Your task to perform on an android device: See recent photos Image 0: 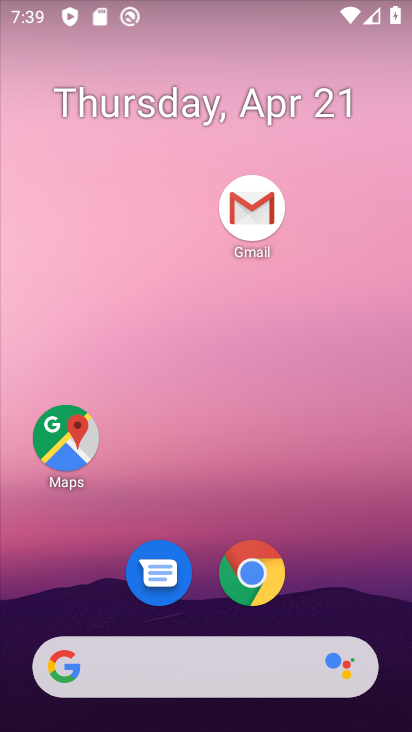
Step 0: drag from (350, 544) to (374, 141)
Your task to perform on an android device: See recent photos Image 1: 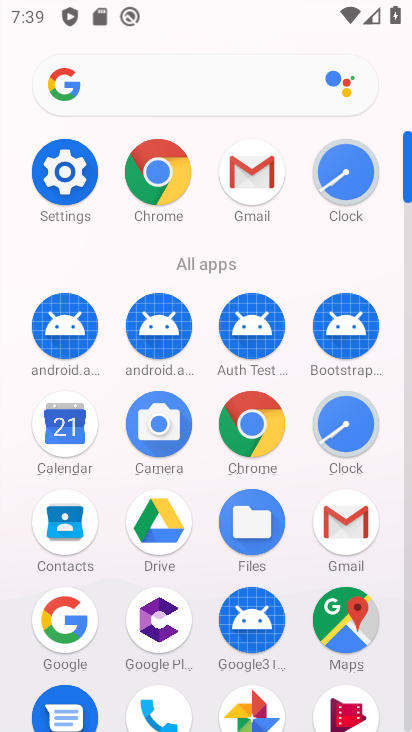
Step 1: drag from (387, 578) to (356, 340)
Your task to perform on an android device: See recent photos Image 2: 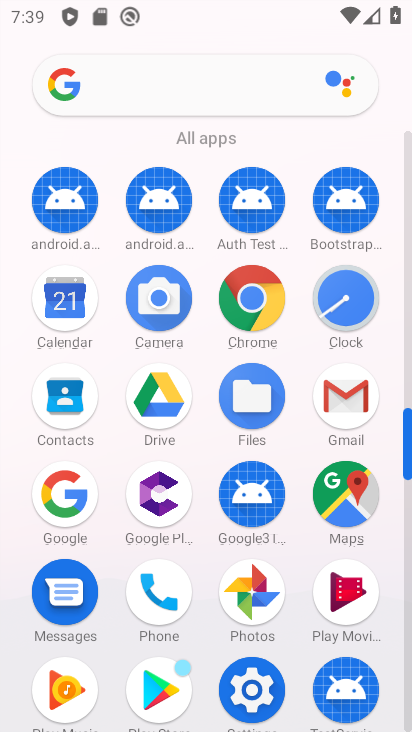
Step 2: click (242, 588)
Your task to perform on an android device: See recent photos Image 3: 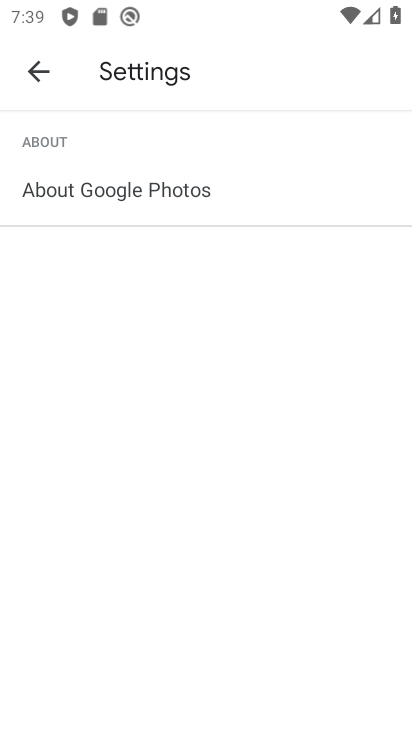
Step 3: click (33, 94)
Your task to perform on an android device: See recent photos Image 4: 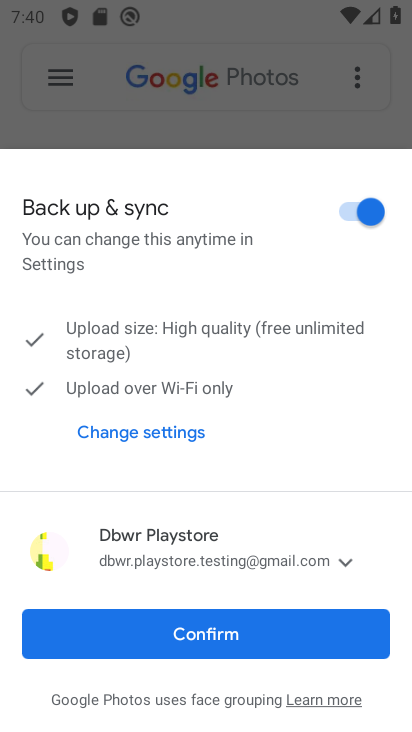
Step 4: click (159, 629)
Your task to perform on an android device: See recent photos Image 5: 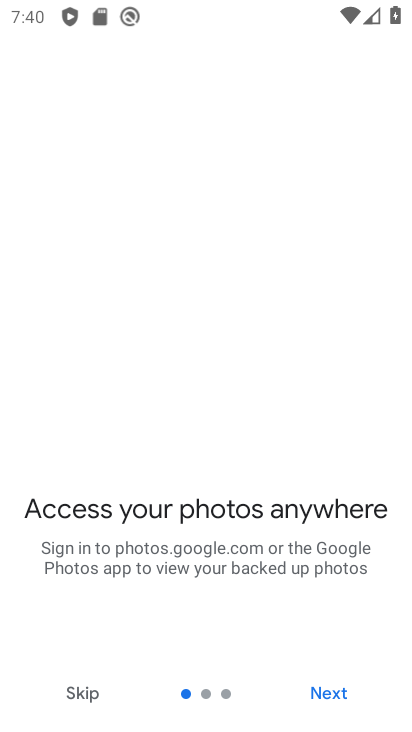
Step 5: click (329, 687)
Your task to perform on an android device: See recent photos Image 6: 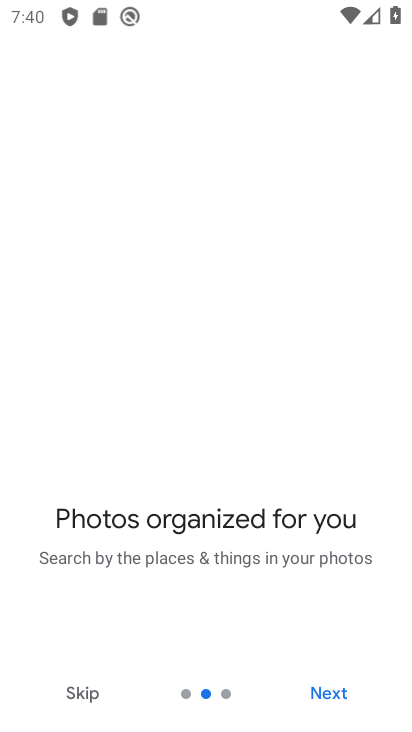
Step 6: click (329, 687)
Your task to perform on an android device: See recent photos Image 7: 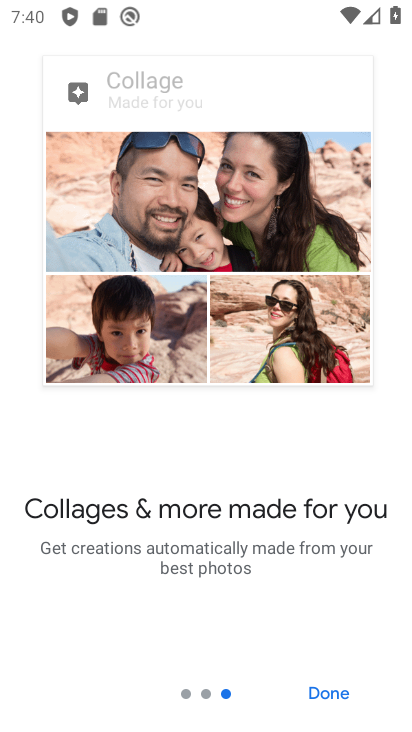
Step 7: click (306, 687)
Your task to perform on an android device: See recent photos Image 8: 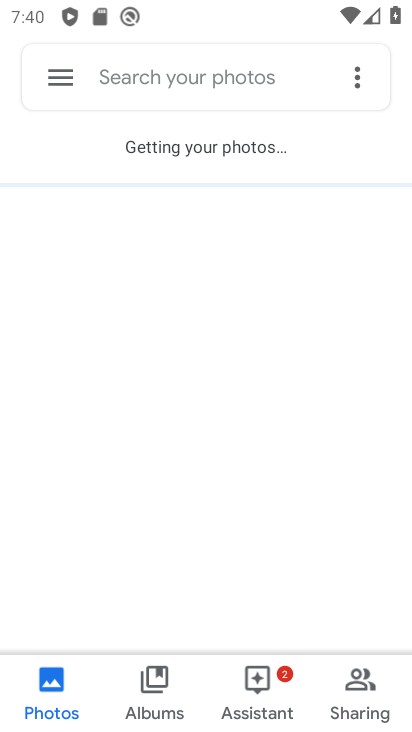
Step 8: click (58, 198)
Your task to perform on an android device: See recent photos Image 9: 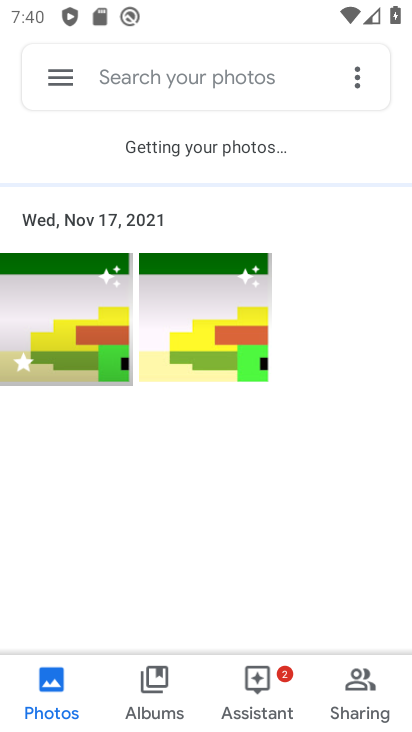
Step 9: click (186, 144)
Your task to perform on an android device: See recent photos Image 10: 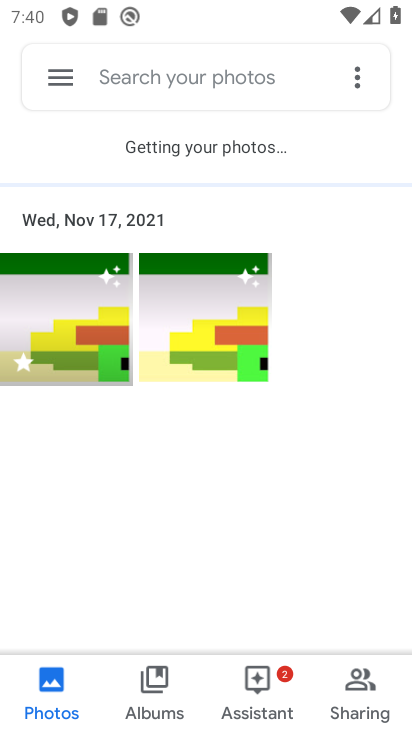
Step 10: click (86, 351)
Your task to perform on an android device: See recent photos Image 11: 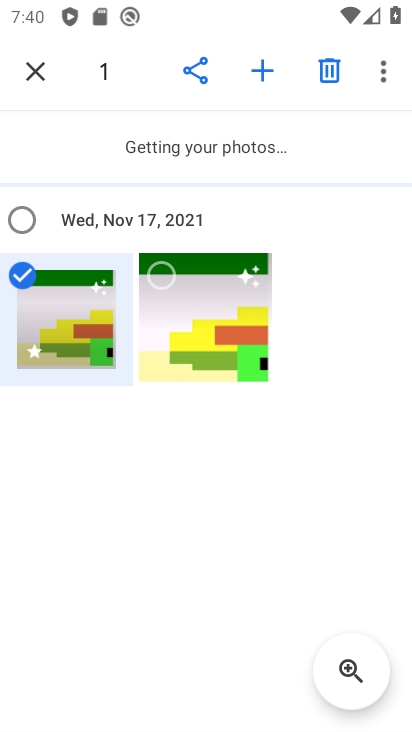
Step 11: click (28, 269)
Your task to perform on an android device: See recent photos Image 12: 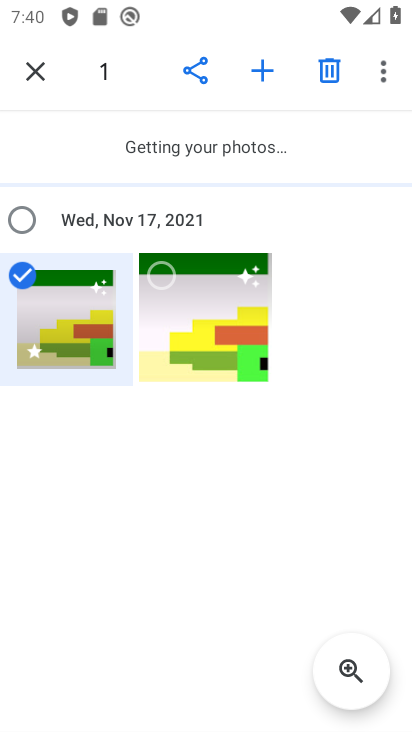
Step 12: click (29, 283)
Your task to perform on an android device: See recent photos Image 13: 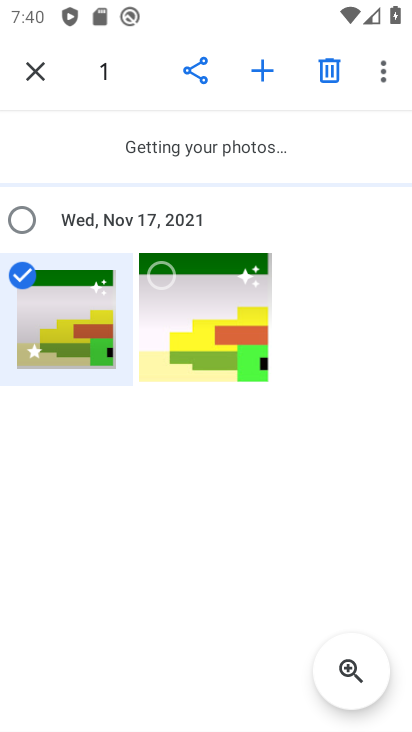
Step 13: click (28, 282)
Your task to perform on an android device: See recent photos Image 14: 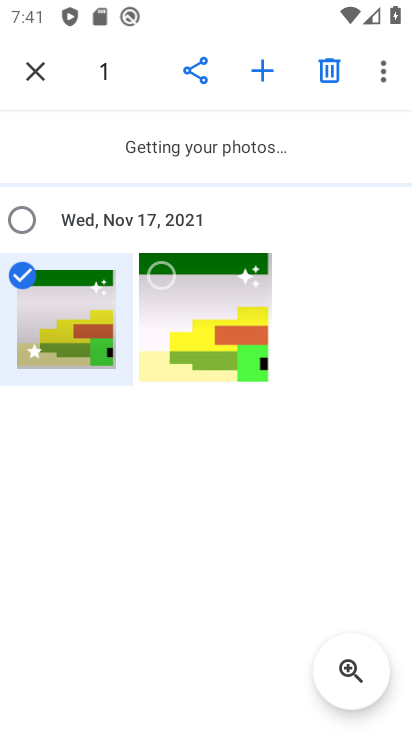
Step 14: click (32, 255)
Your task to perform on an android device: See recent photos Image 15: 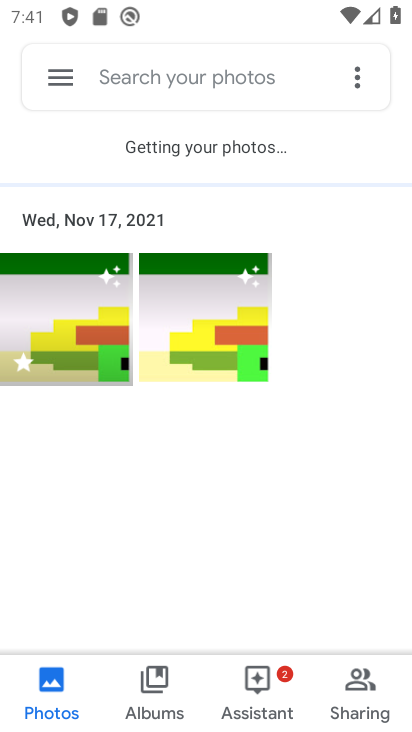
Step 15: click (109, 367)
Your task to perform on an android device: See recent photos Image 16: 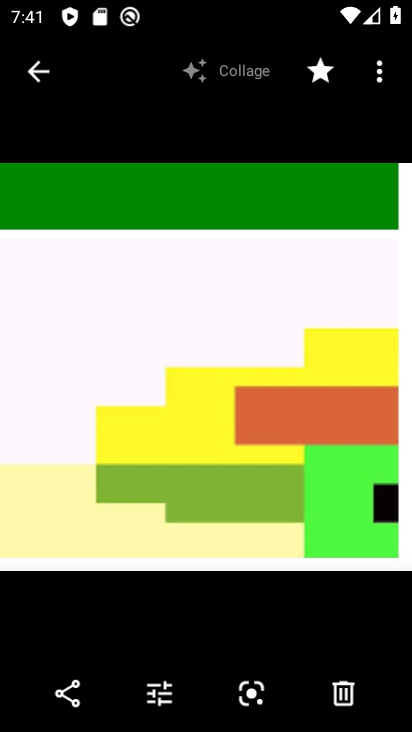
Step 16: task complete